Your task to perform on an android device: Go to settings Image 0: 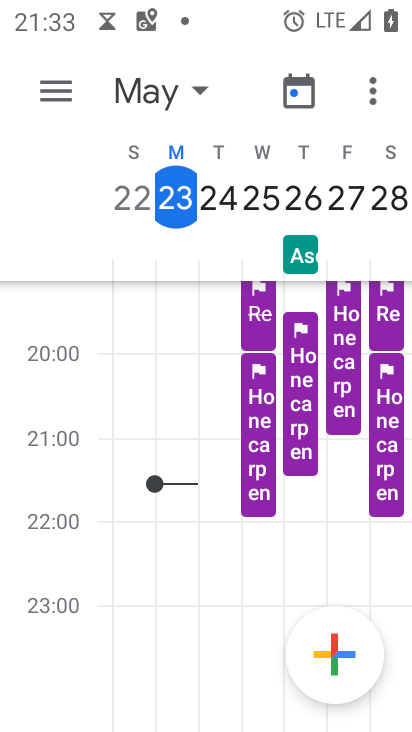
Step 0: press home button
Your task to perform on an android device: Go to settings Image 1: 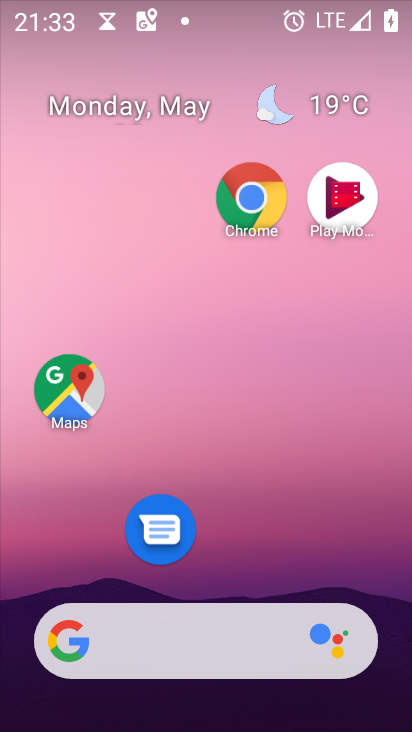
Step 1: drag from (235, 552) to (172, 6)
Your task to perform on an android device: Go to settings Image 2: 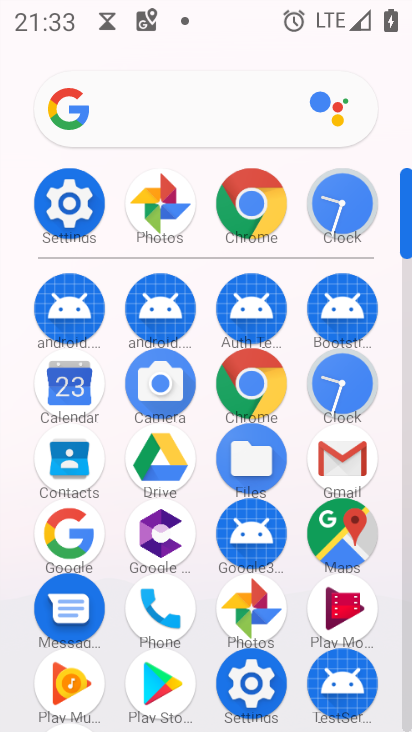
Step 2: click (67, 230)
Your task to perform on an android device: Go to settings Image 3: 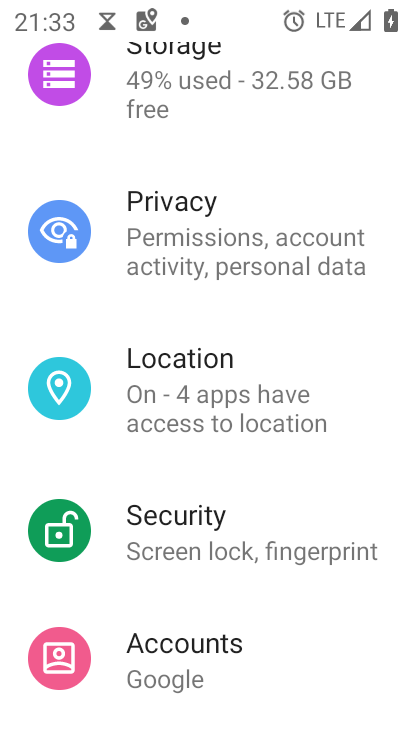
Step 3: task complete